Your task to perform on an android device: see tabs open on other devices in the chrome app Image 0: 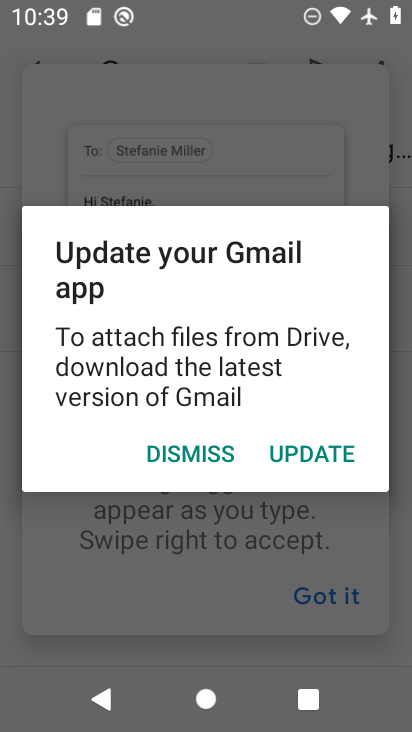
Step 0: press back button
Your task to perform on an android device: see tabs open on other devices in the chrome app Image 1: 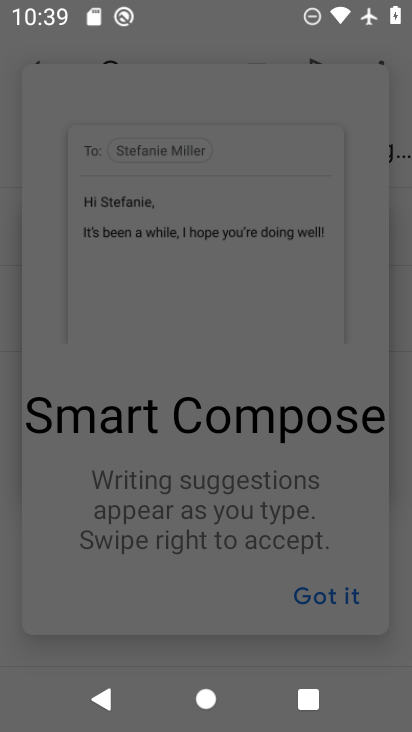
Step 1: press back button
Your task to perform on an android device: see tabs open on other devices in the chrome app Image 2: 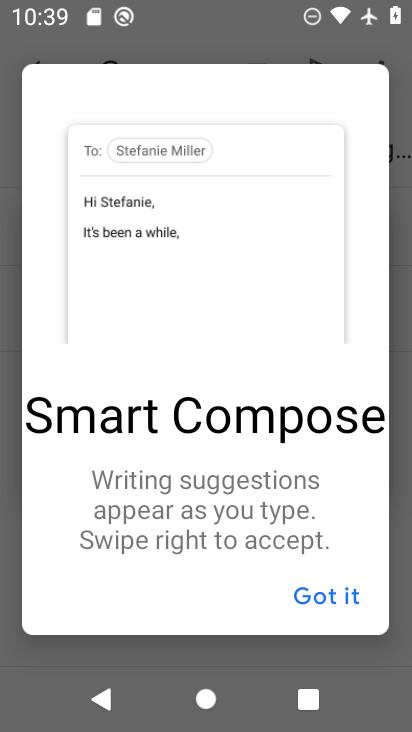
Step 2: press home button
Your task to perform on an android device: see tabs open on other devices in the chrome app Image 3: 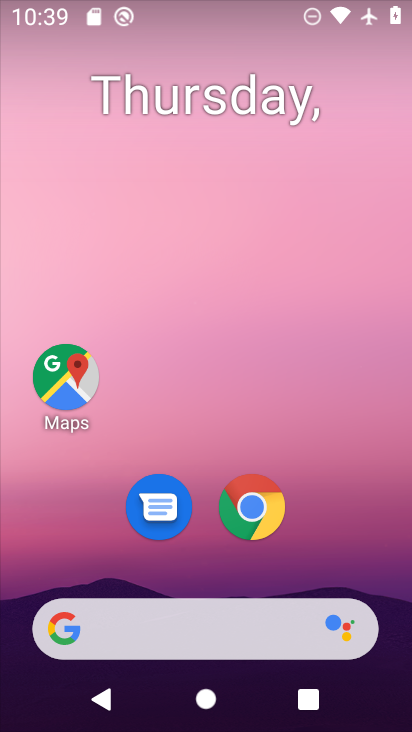
Step 3: drag from (339, 523) to (275, 7)
Your task to perform on an android device: see tabs open on other devices in the chrome app Image 4: 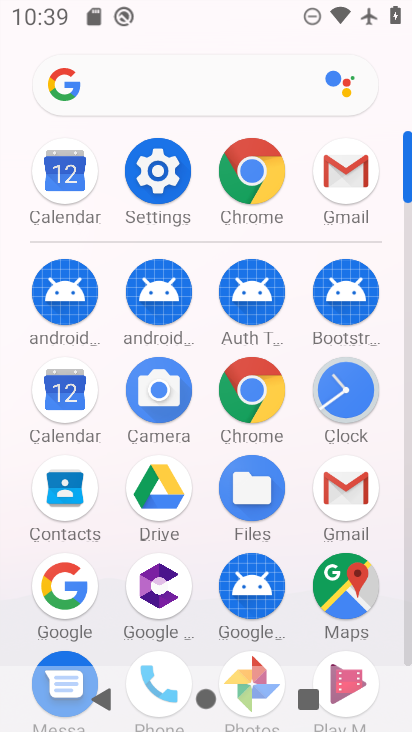
Step 4: click (256, 163)
Your task to perform on an android device: see tabs open on other devices in the chrome app Image 5: 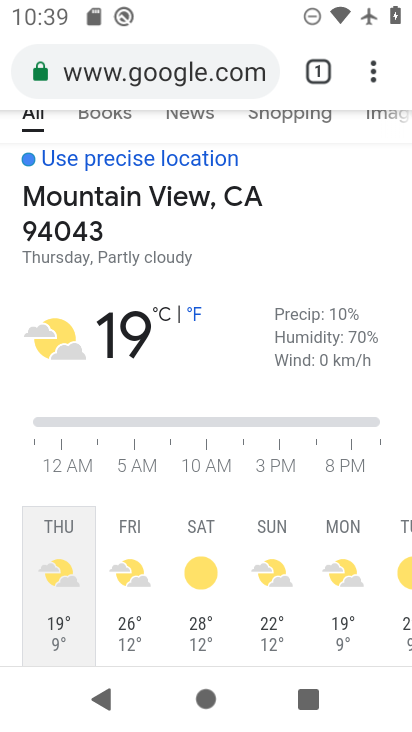
Step 5: task complete